Your task to perform on an android device: toggle airplane mode Image 0: 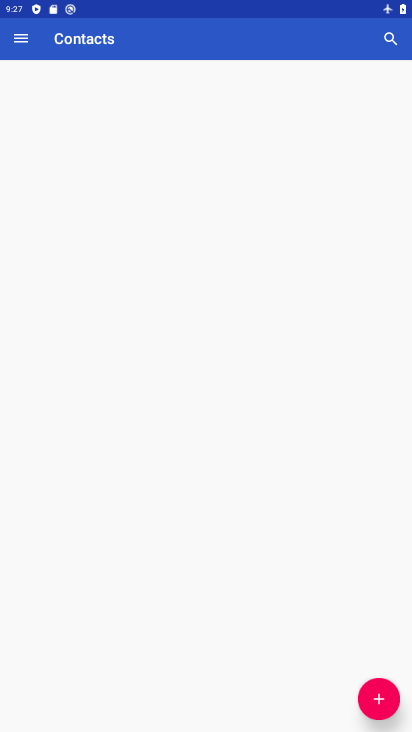
Step 0: press home button
Your task to perform on an android device: toggle airplane mode Image 1: 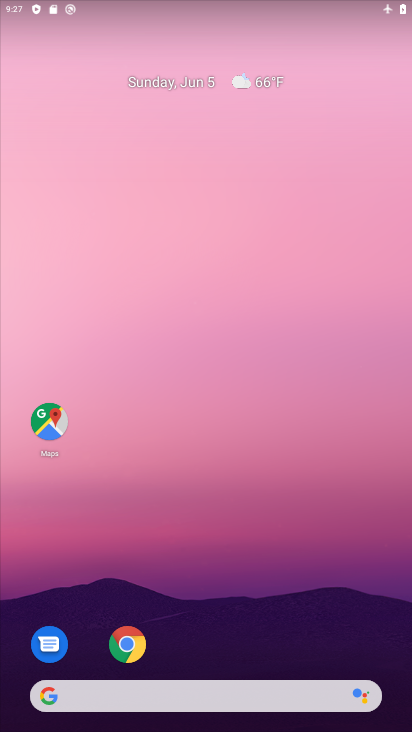
Step 1: drag from (223, 632) to (310, 0)
Your task to perform on an android device: toggle airplane mode Image 2: 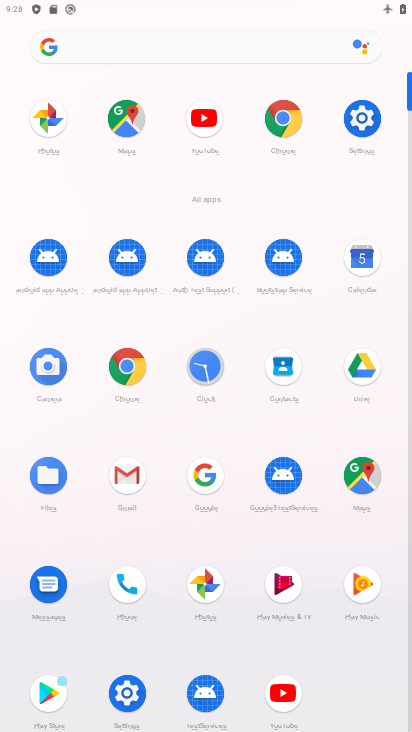
Step 2: click (360, 129)
Your task to perform on an android device: toggle airplane mode Image 3: 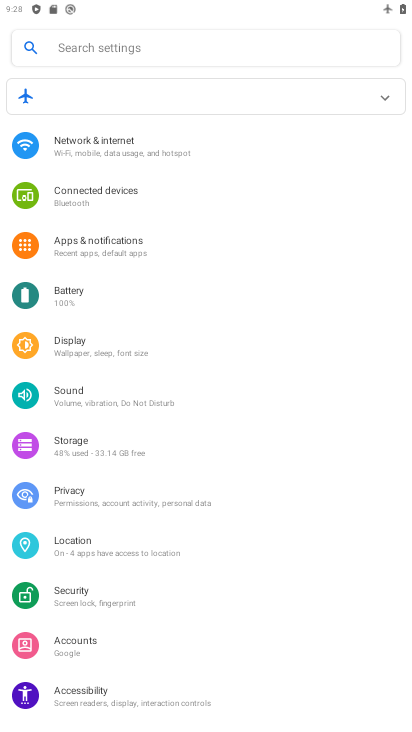
Step 3: click (127, 146)
Your task to perform on an android device: toggle airplane mode Image 4: 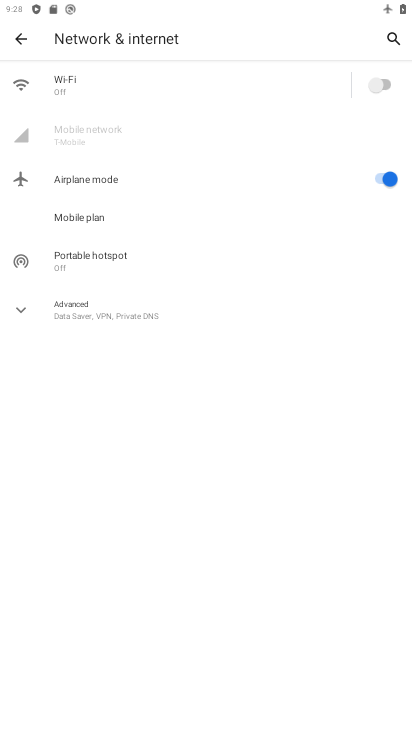
Step 4: click (366, 176)
Your task to perform on an android device: toggle airplane mode Image 5: 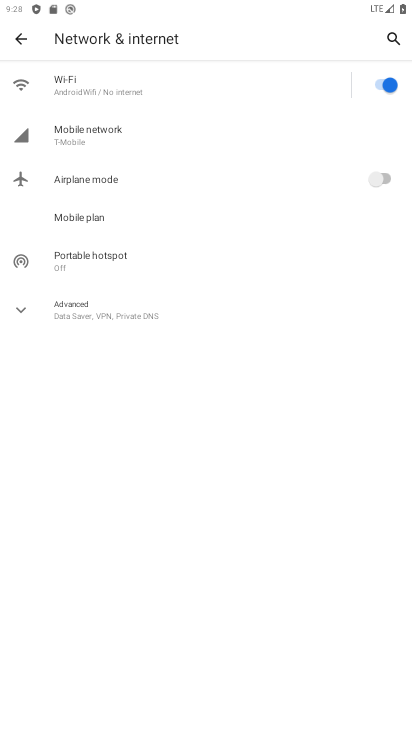
Step 5: task complete